Your task to perform on an android device: Open notification settings Image 0: 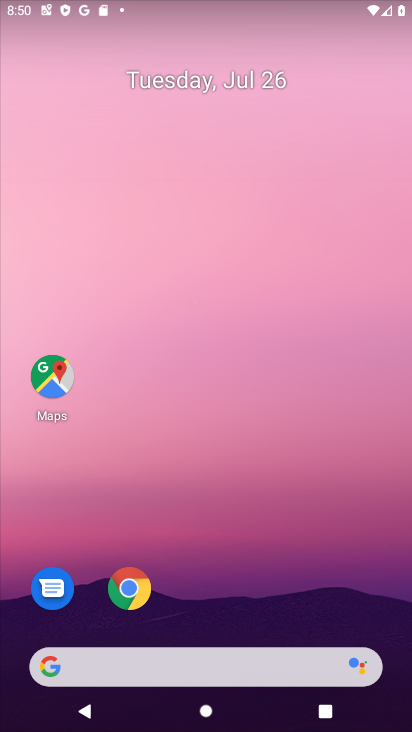
Step 0: drag from (215, 622) to (236, 99)
Your task to perform on an android device: Open notification settings Image 1: 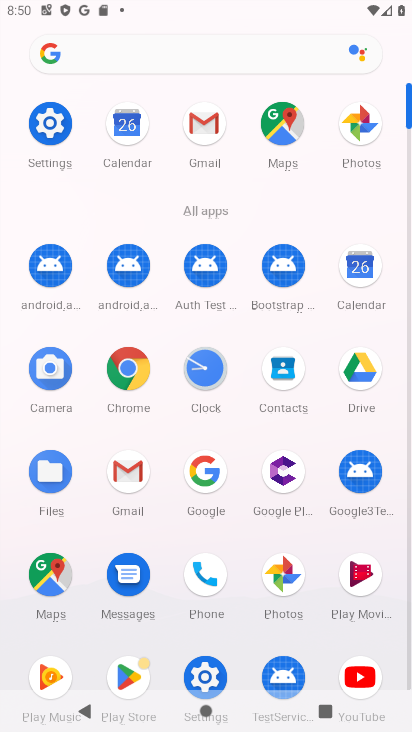
Step 1: click (49, 117)
Your task to perform on an android device: Open notification settings Image 2: 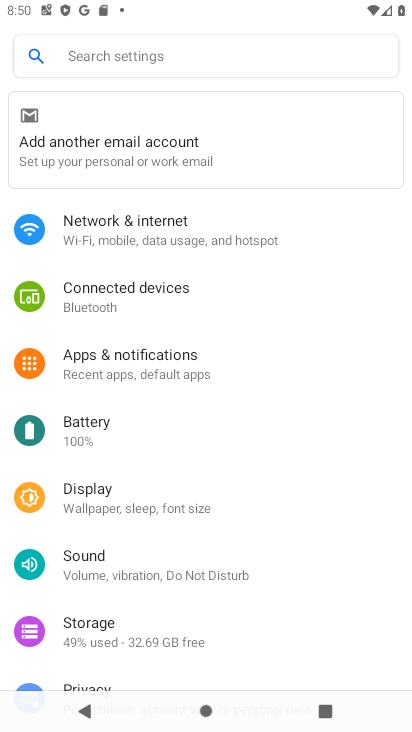
Step 2: click (199, 359)
Your task to perform on an android device: Open notification settings Image 3: 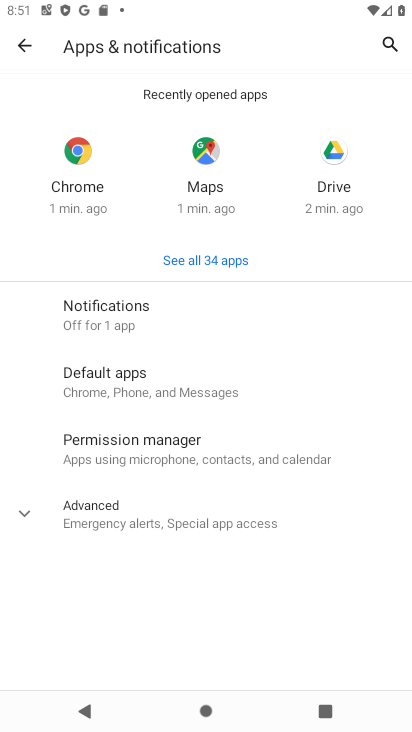
Step 3: click (164, 312)
Your task to perform on an android device: Open notification settings Image 4: 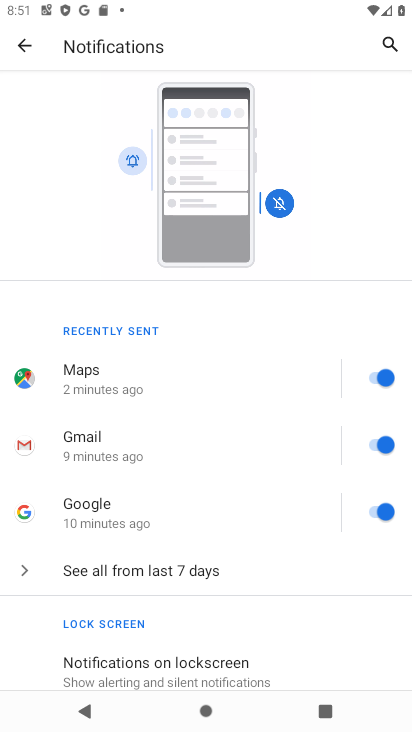
Step 4: drag from (226, 628) to (248, 242)
Your task to perform on an android device: Open notification settings Image 5: 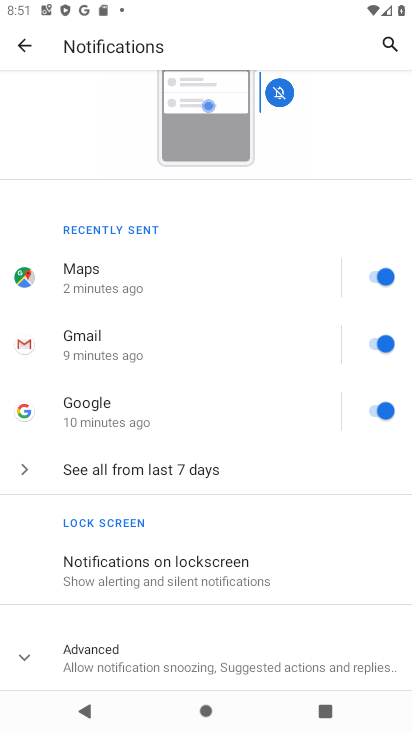
Step 5: click (26, 653)
Your task to perform on an android device: Open notification settings Image 6: 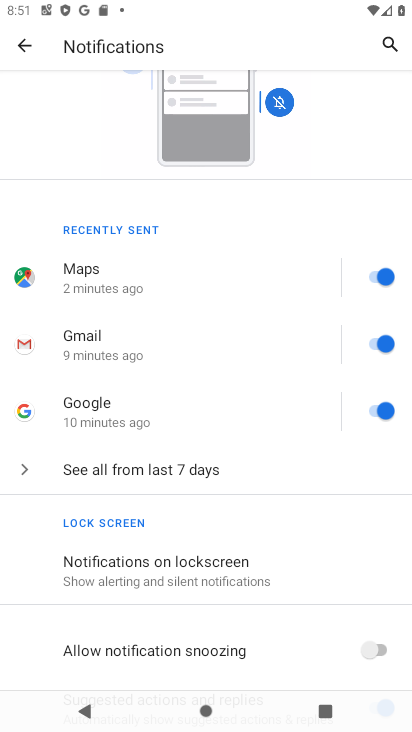
Step 6: task complete